Your task to perform on an android device: search for starred emails in the gmail app Image 0: 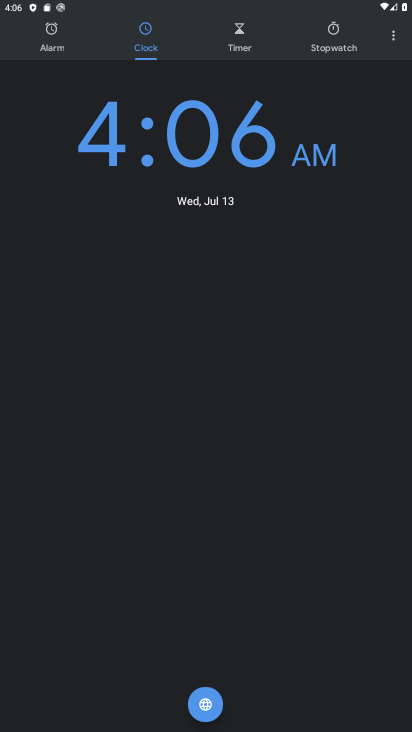
Step 0: press home button
Your task to perform on an android device: search for starred emails in the gmail app Image 1: 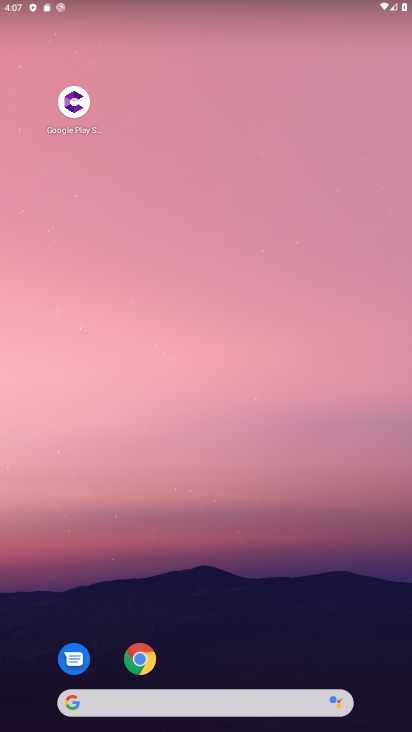
Step 1: drag from (188, 671) to (177, 74)
Your task to perform on an android device: search for starred emails in the gmail app Image 2: 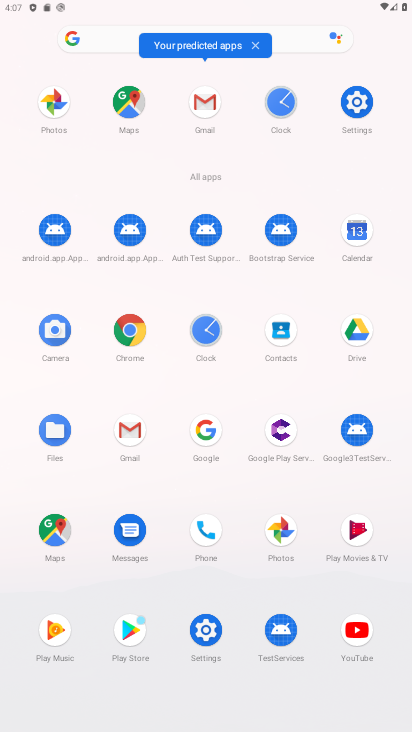
Step 2: drag from (202, 677) to (242, 83)
Your task to perform on an android device: search for starred emails in the gmail app Image 3: 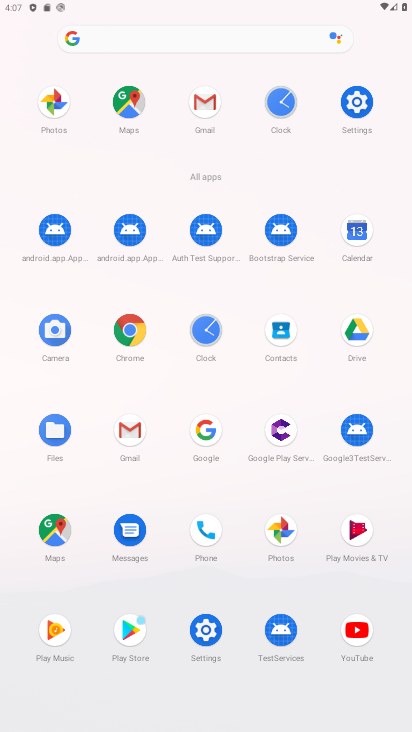
Step 3: click (133, 433)
Your task to perform on an android device: search for starred emails in the gmail app Image 4: 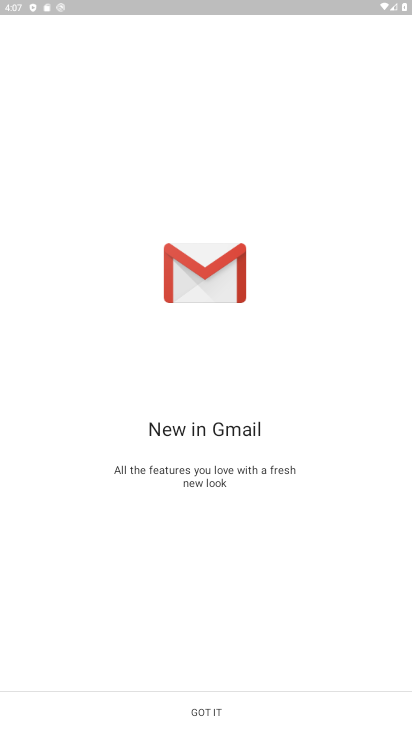
Step 4: click (211, 712)
Your task to perform on an android device: search for starred emails in the gmail app Image 5: 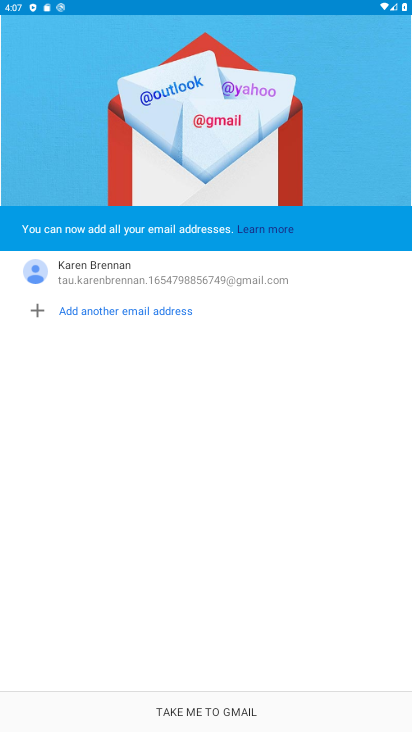
Step 5: click (207, 721)
Your task to perform on an android device: search for starred emails in the gmail app Image 6: 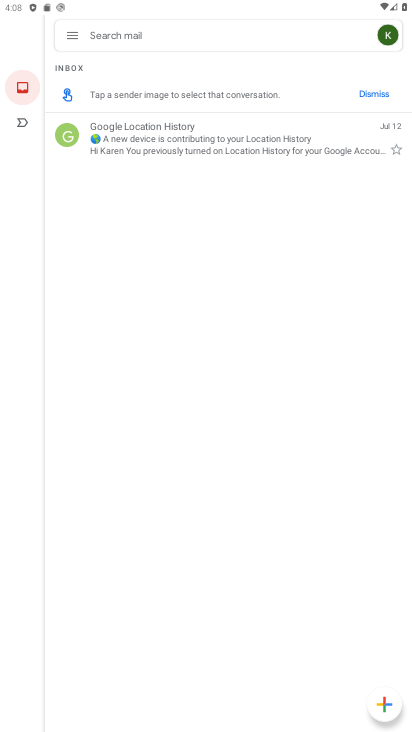
Step 6: click (71, 35)
Your task to perform on an android device: search for starred emails in the gmail app Image 7: 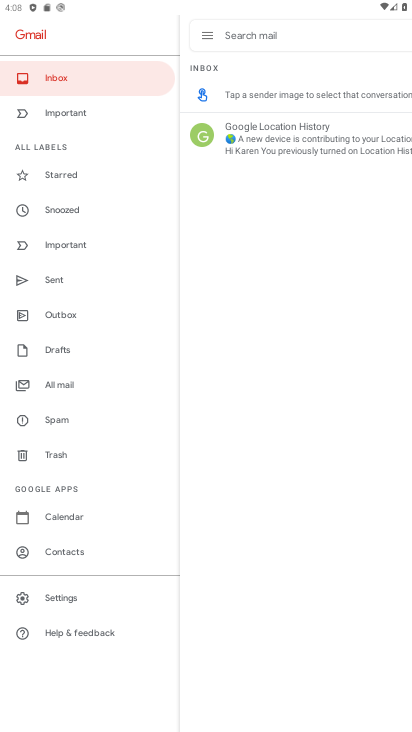
Step 7: click (69, 215)
Your task to perform on an android device: search for starred emails in the gmail app Image 8: 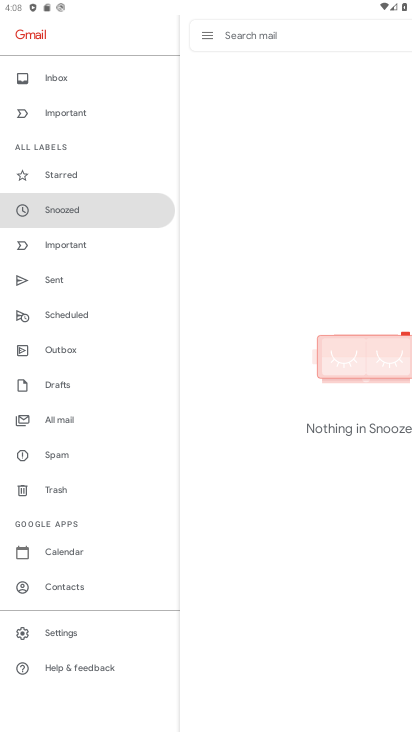
Step 8: click (60, 177)
Your task to perform on an android device: search for starred emails in the gmail app Image 9: 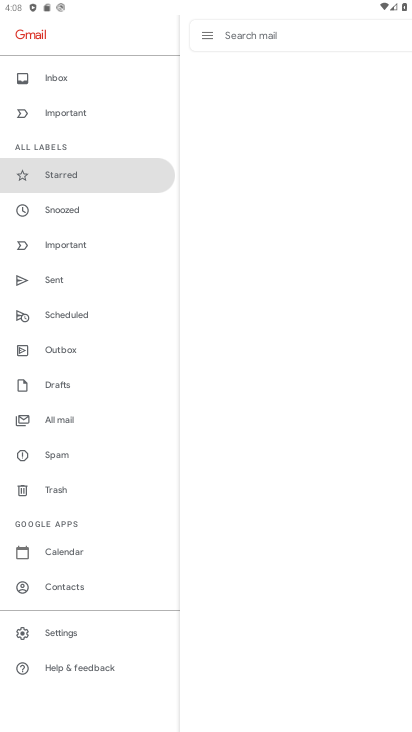
Step 9: click (60, 177)
Your task to perform on an android device: search for starred emails in the gmail app Image 10: 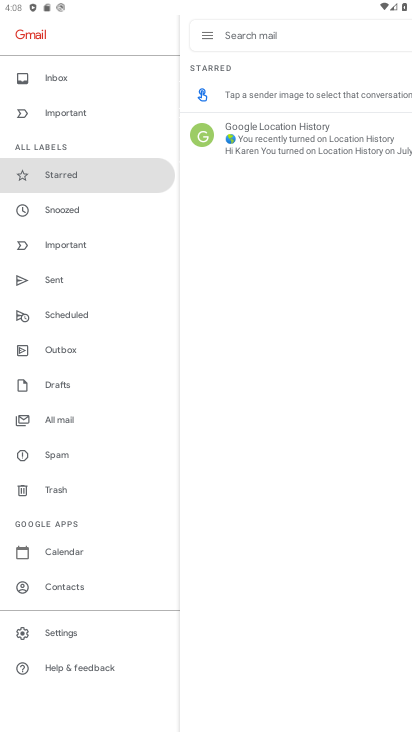
Step 10: task complete